Your task to perform on an android device: turn off sleep mode Image 0: 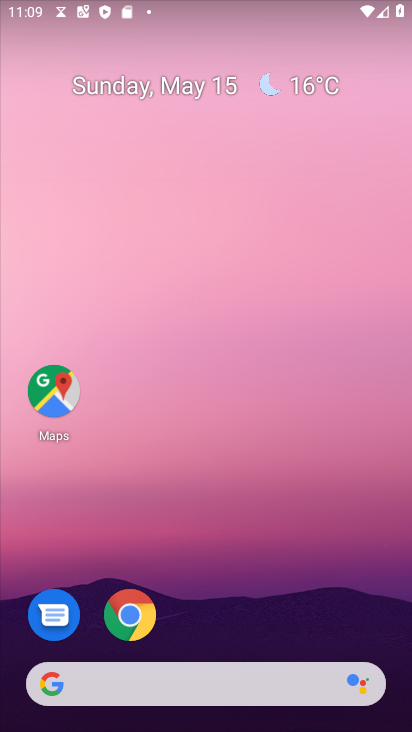
Step 0: drag from (325, 694) to (354, 5)
Your task to perform on an android device: turn off sleep mode Image 1: 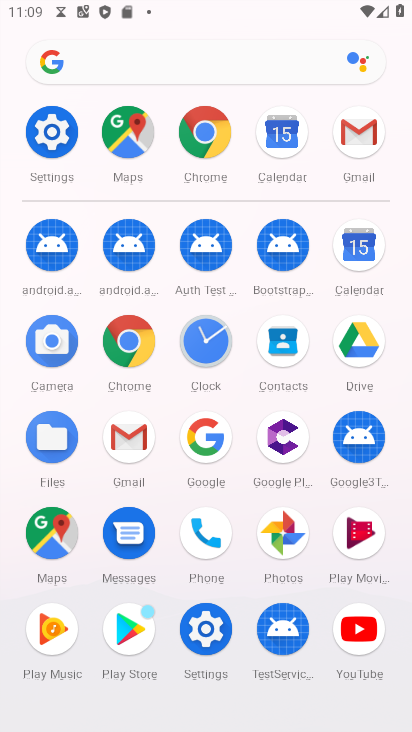
Step 1: click (47, 124)
Your task to perform on an android device: turn off sleep mode Image 2: 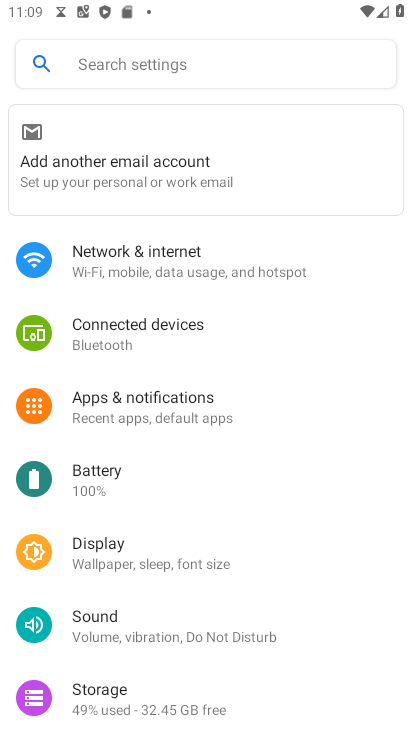
Step 2: click (222, 639)
Your task to perform on an android device: turn off sleep mode Image 3: 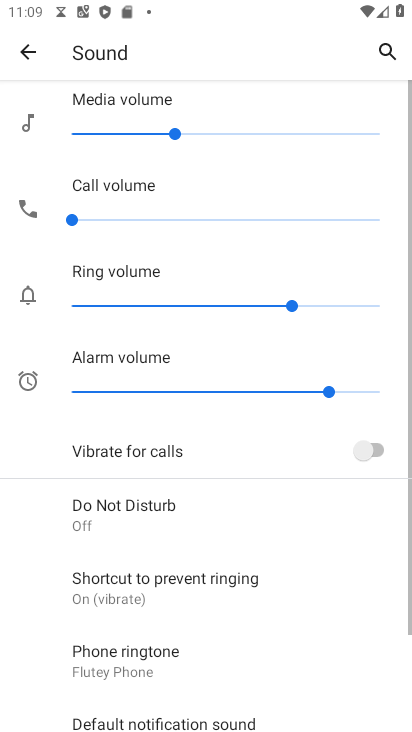
Step 3: task complete